Your task to perform on an android device: Toggle the flashlight Image 0: 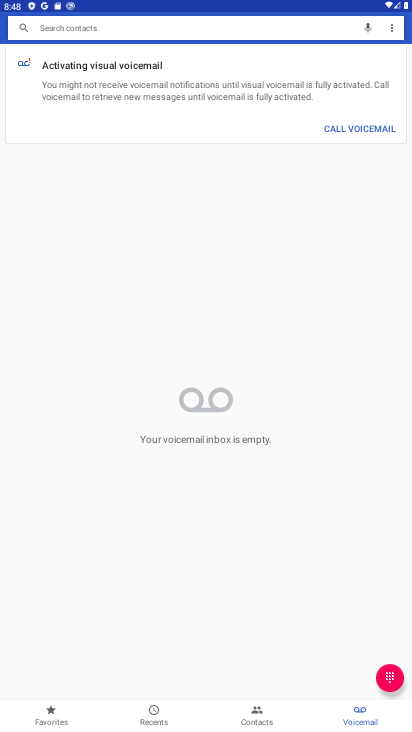
Step 0: drag from (229, 618) to (143, 103)
Your task to perform on an android device: Toggle the flashlight Image 1: 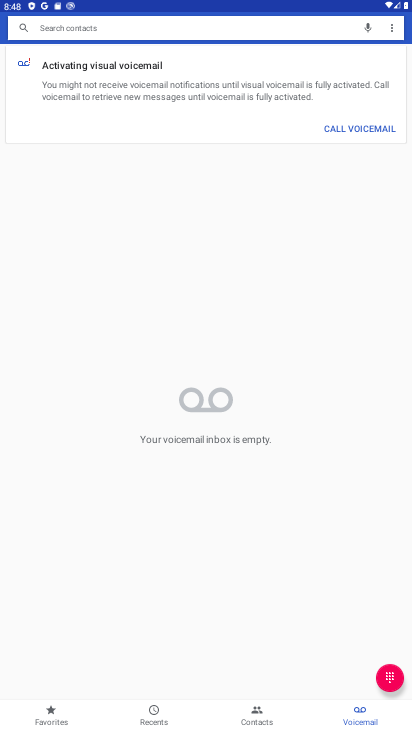
Step 1: task complete